Your task to perform on an android device: add a contact in the contacts app Image 0: 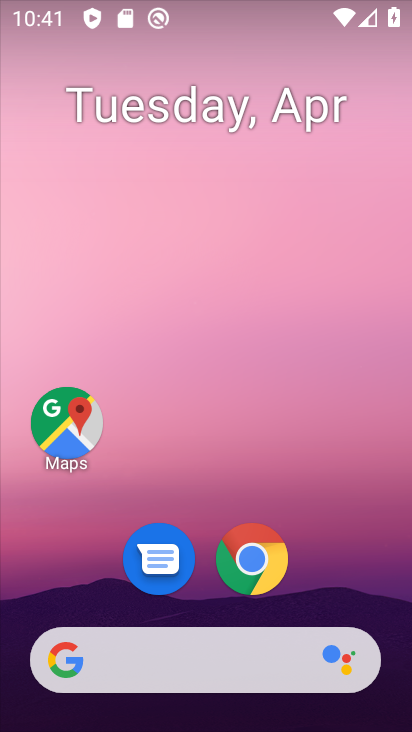
Step 0: drag from (316, 519) to (316, 76)
Your task to perform on an android device: add a contact in the contacts app Image 1: 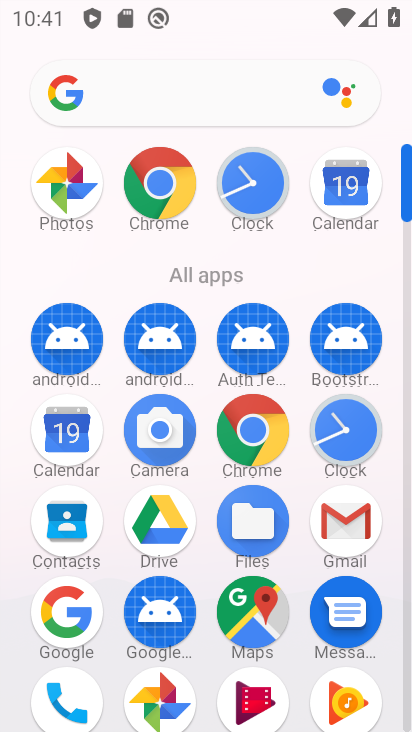
Step 1: click (66, 523)
Your task to perform on an android device: add a contact in the contacts app Image 2: 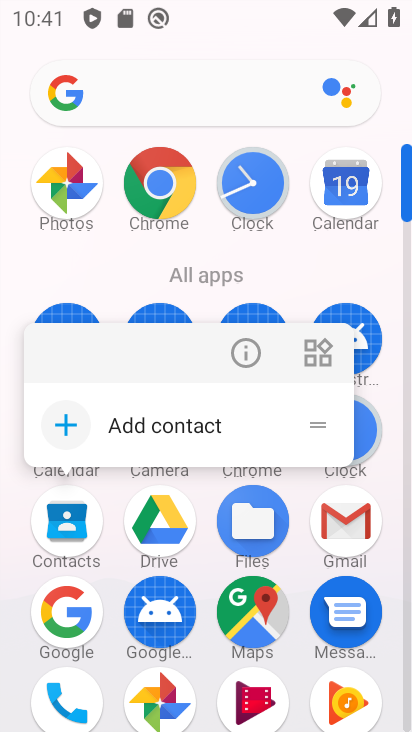
Step 2: click (72, 520)
Your task to perform on an android device: add a contact in the contacts app Image 3: 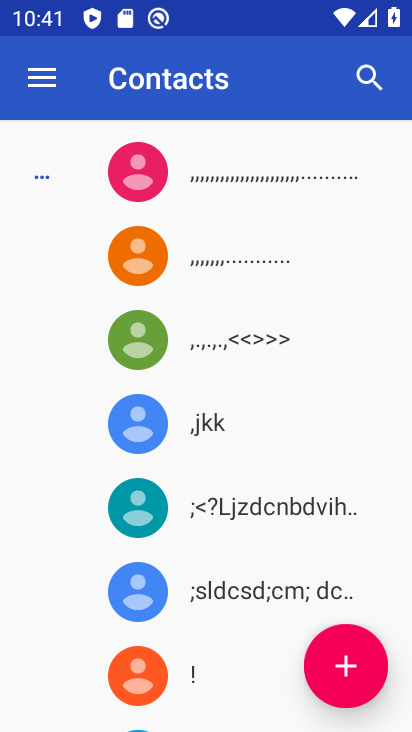
Step 3: click (348, 688)
Your task to perform on an android device: add a contact in the contacts app Image 4: 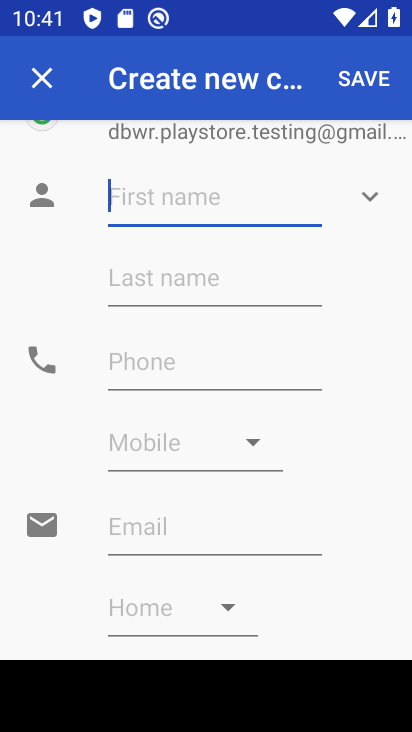
Step 4: type "rtghce"
Your task to perform on an android device: add a contact in the contacts app Image 5: 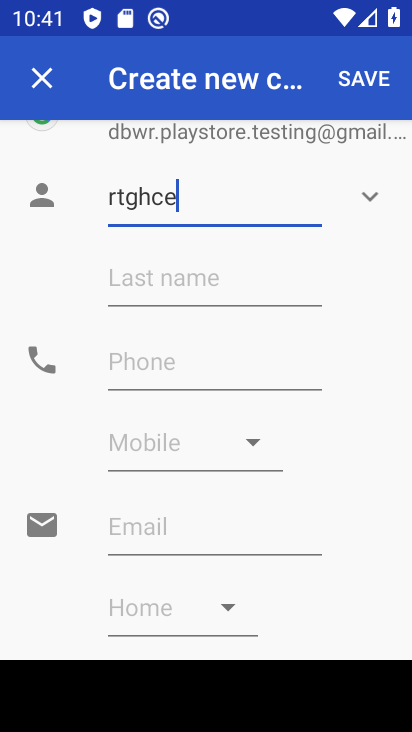
Step 5: click (223, 356)
Your task to perform on an android device: add a contact in the contacts app Image 6: 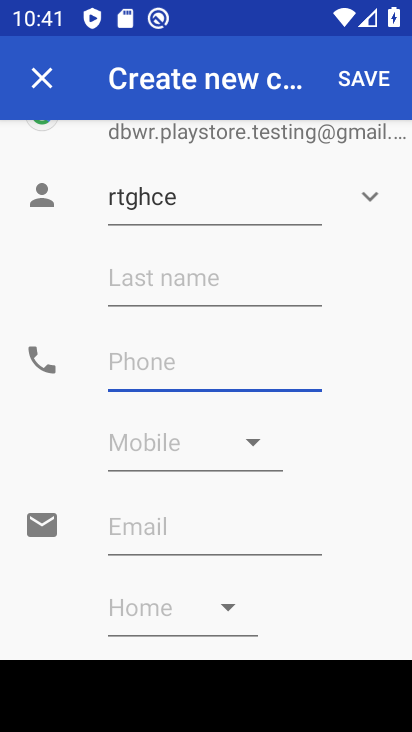
Step 6: type "5687678788887"
Your task to perform on an android device: add a contact in the contacts app Image 7: 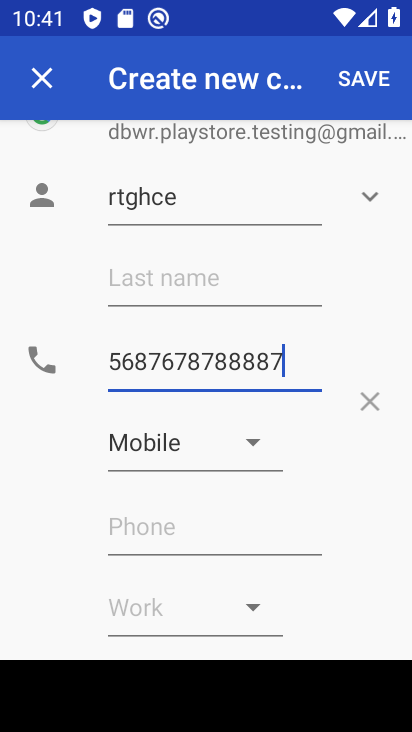
Step 7: click (372, 74)
Your task to perform on an android device: add a contact in the contacts app Image 8: 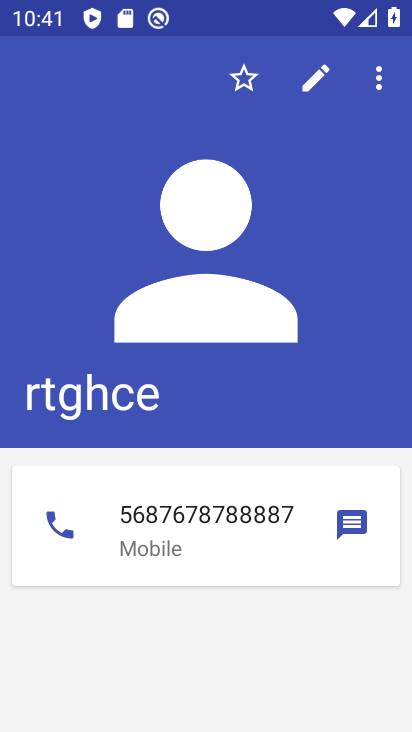
Step 8: task complete